Your task to perform on an android device: change the clock display to show seconds Image 0: 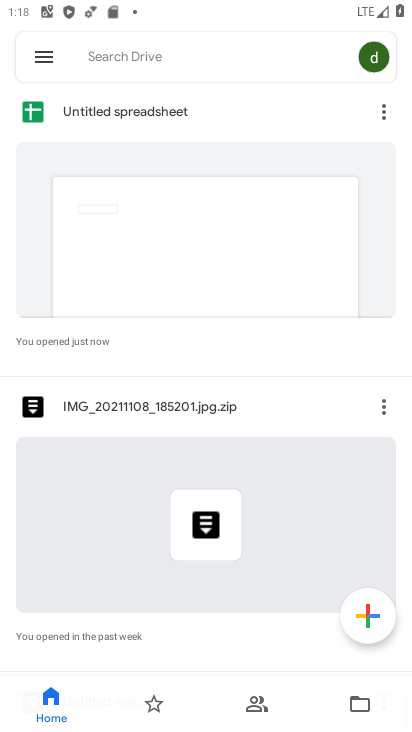
Step 0: press home button
Your task to perform on an android device: change the clock display to show seconds Image 1: 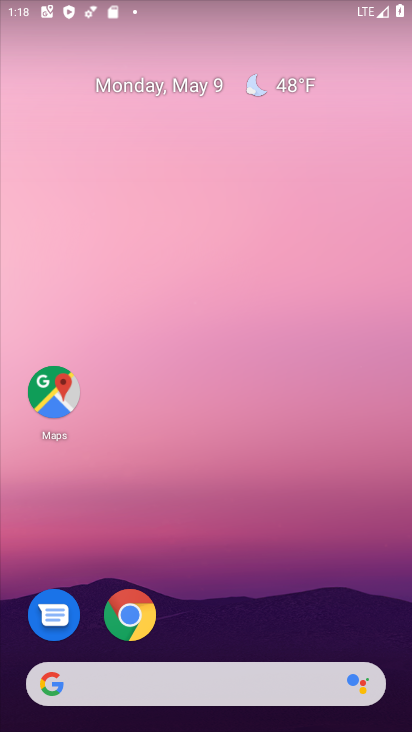
Step 1: drag from (373, 631) to (340, 0)
Your task to perform on an android device: change the clock display to show seconds Image 2: 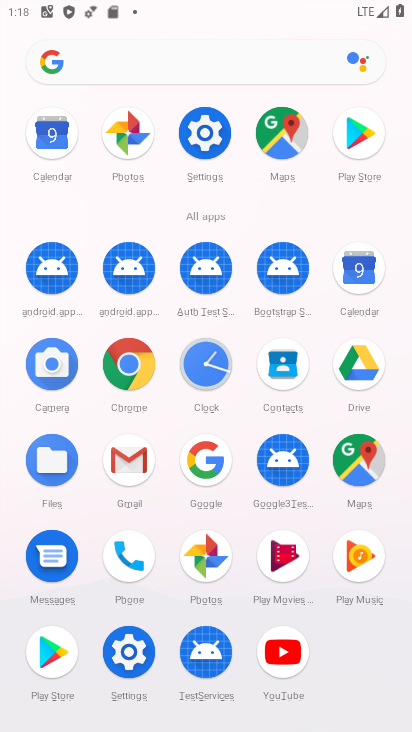
Step 2: click (204, 366)
Your task to perform on an android device: change the clock display to show seconds Image 3: 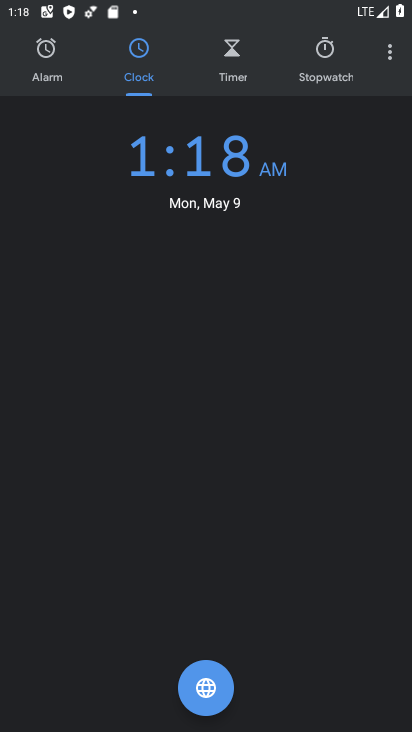
Step 3: click (387, 61)
Your task to perform on an android device: change the clock display to show seconds Image 4: 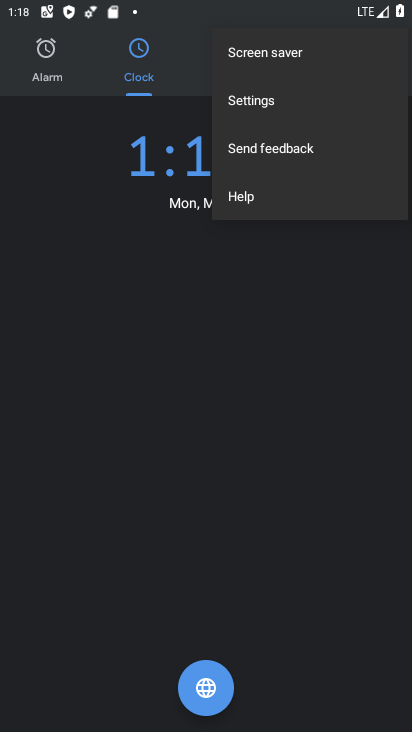
Step 4: click (247, 100)
Your task to perform on an android device: change the clock display to show seconds Image 5: 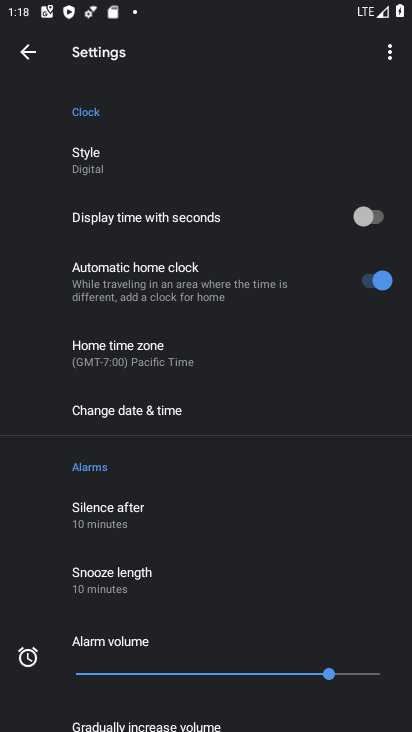
Step 5: click (373, 215)
Your task to perform on an android device: change the clock display to show seconds Image 6: 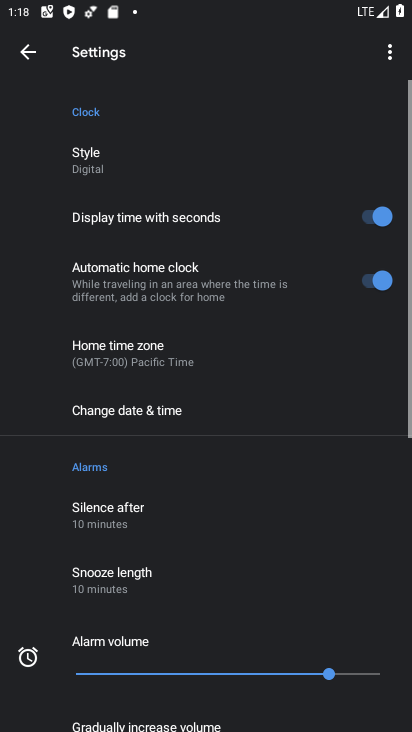
Step 6: task complete